Your task to perform on an android device: Open Maps and search for coffee Image 0: 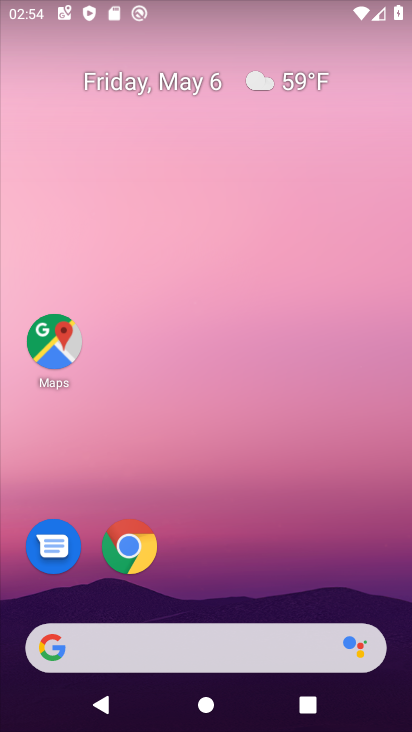
Step 0: click (62, 340)
Your task to perform on an android device: Open Maps and search for coffee Image 1: 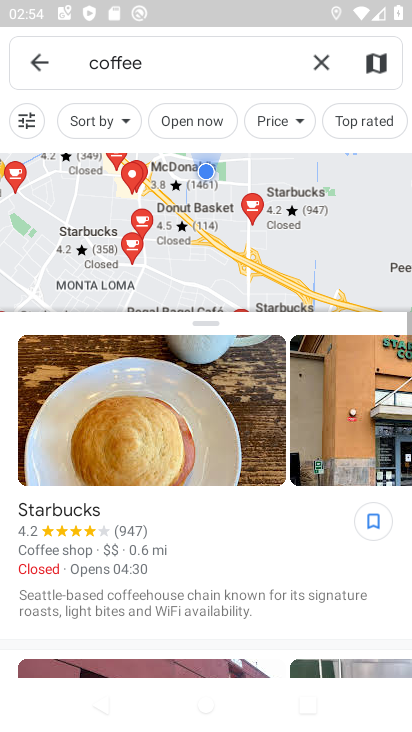
Step 1: task complete